Your task to perform on an android device: uninstall "Instagram" Image 0: 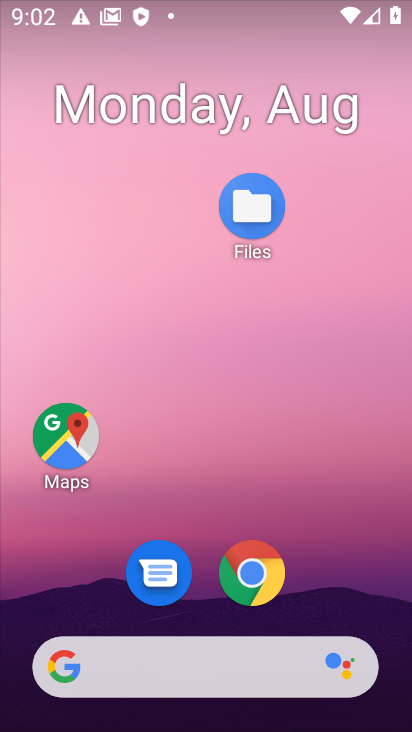
Step 0: drag from (275, 660) to (234, 410)
Your task to perform on an android device: uninstall "Instagram" Image 1: 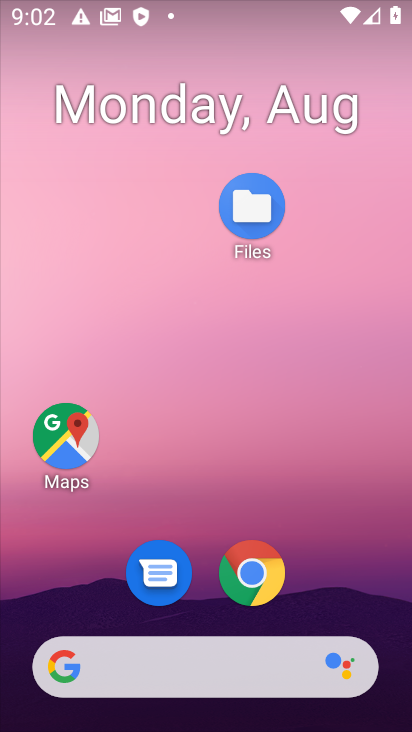
Step 1: drag from (274, 655) to (226, 21)
Your task to perform on an android device: uninstall "Instagram" Image 2: 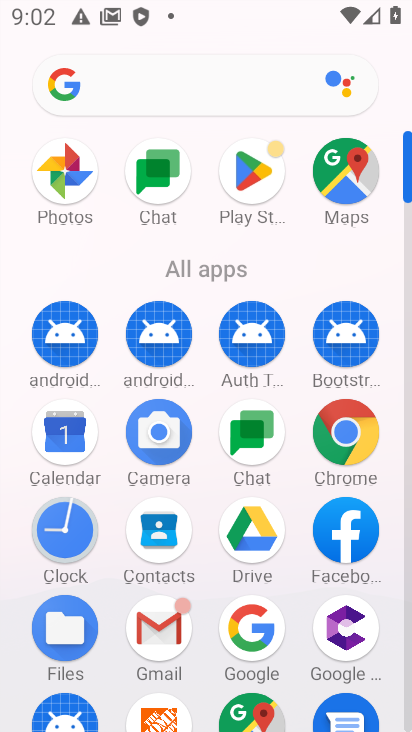
Step 2: click (263, 155)
Your task to perform on an android device: uninstall "Instagram" Image 3: 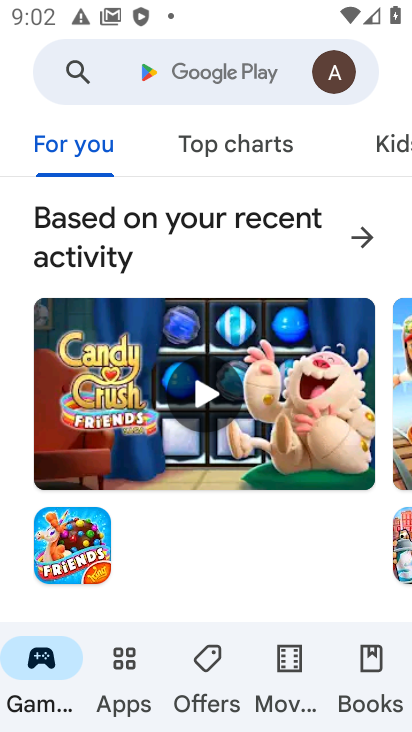
Step 3: click (297, 59)
Your task to perform on an android device: uninstall "Instagram" Image 4: 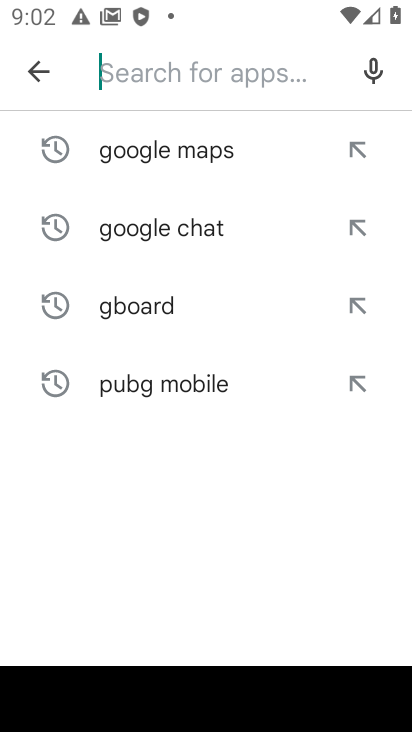
Step 4: type "instagram"
Your task to perform on an android device: uninstall "Instagram" Image 5: 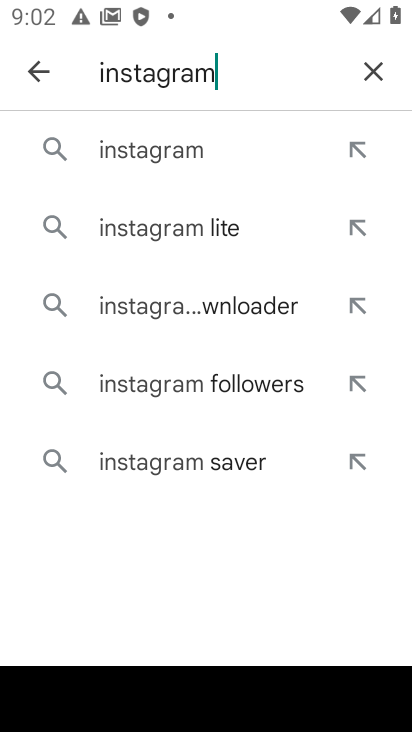
Step 5: click (116, 133)
Your task to perform on an android device: uninstall "Instagram" Image 6: 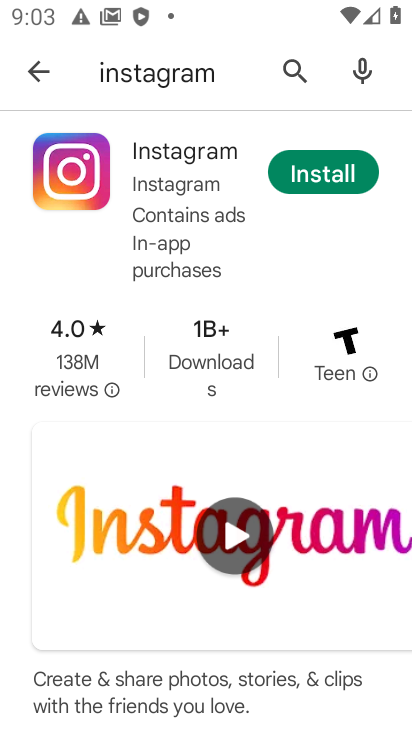
Step 6: task complete